Your task to perform on an android device: Search for vegetarian restaurants on Maps Image 0: 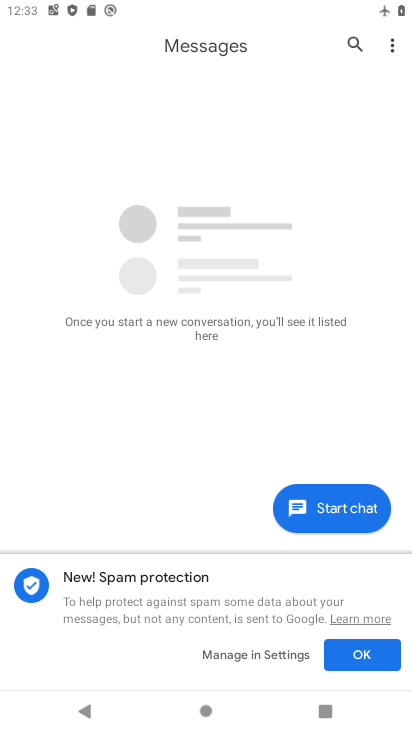
Step 0: press home button
Your task to perform on an android device: Search for vegetarian restaurants on Maps Image 1: 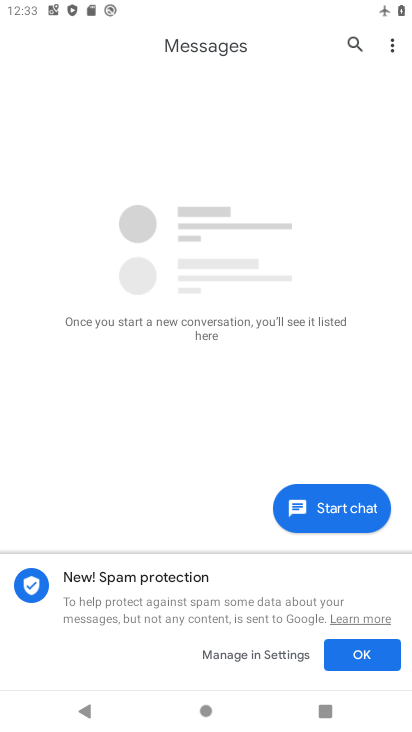
Step 1: press home button
Your task to perform on an android device: Search for vegetarian restaurants on Maps Image 2: 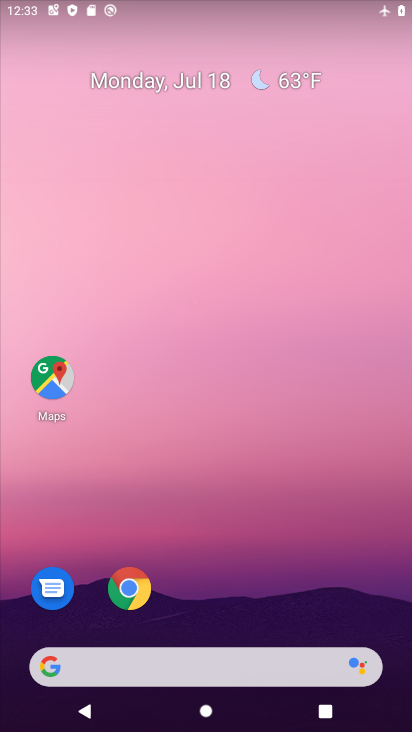
Step 2: drag from (231, 658) to (230, 143)
Your task to perform on an android device: Search for vegetarian restaurants on Maps Image 3: 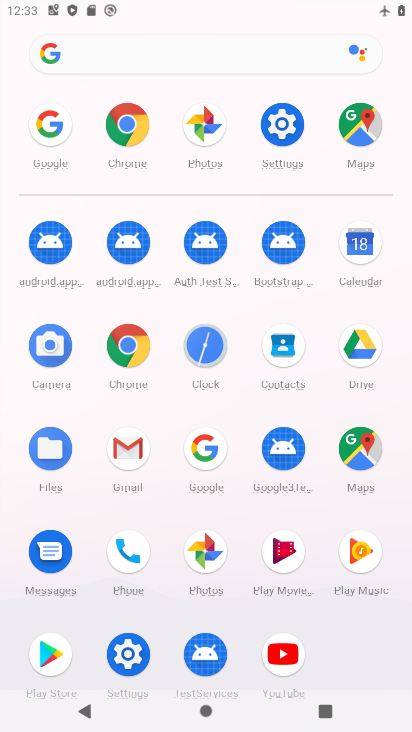
Step 3: click (354, 446)
Your task to perform on an android device: Search for vegetarian restaurants on Maps Image 4: 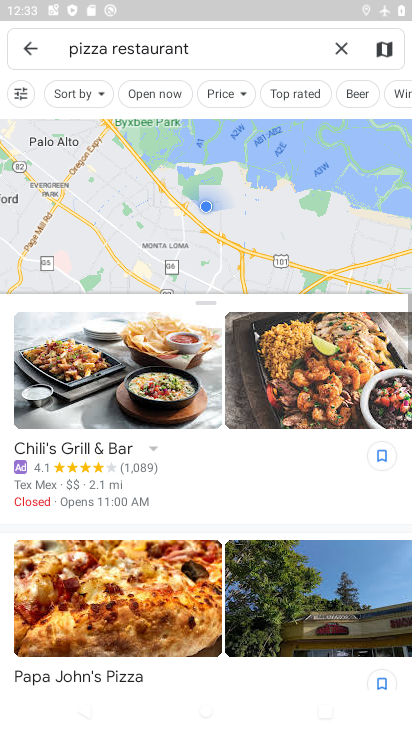
Step 4: click (338, 42)
Your task to perform on an android device: Search for vegetarian restaurants on Maps Image 5: 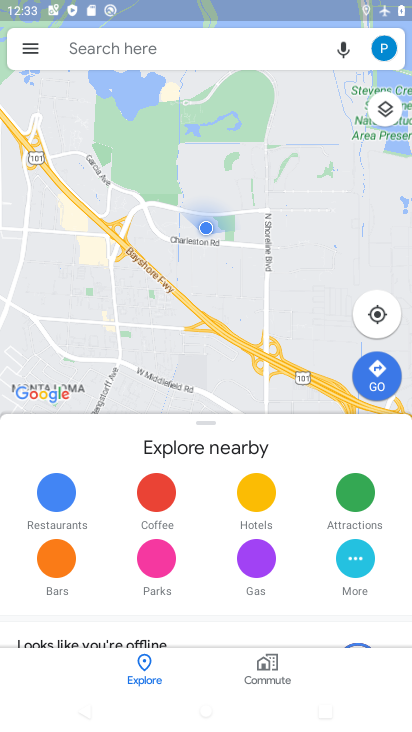
Step 5: click (117, 52)
Your task to perform on an android device: Search for vegetarian restaurants on Maps Image 6: 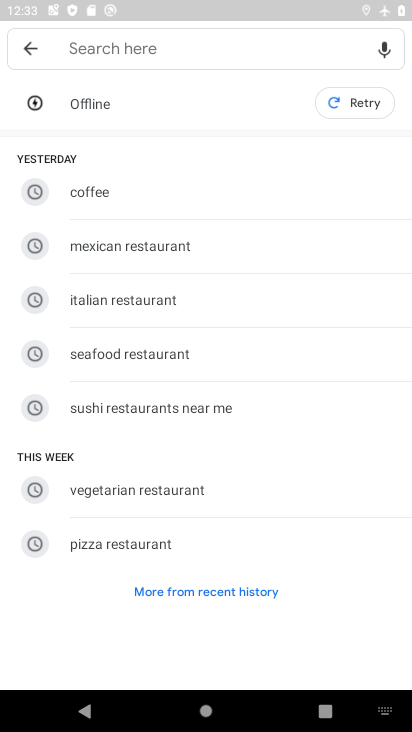
Step 6: type "vegetarian restaurants"
Your task to perform on an android device: Search for vegetarian restaurants on Maps Image 7: 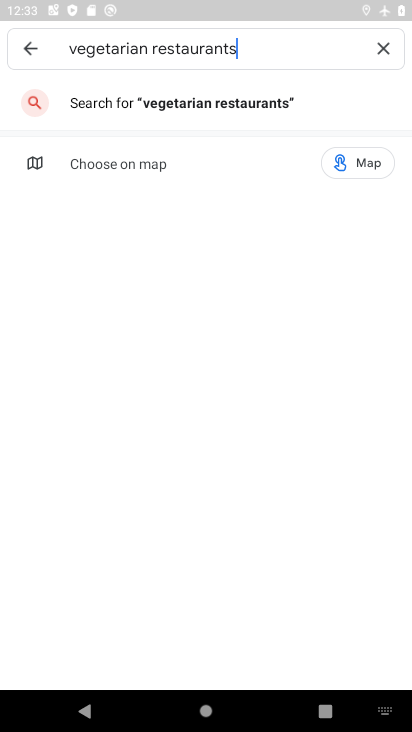
Step 7: click (185, 100)
Your task to perform on an android device: Search for vegetarian restaurants on Maps Image 8: 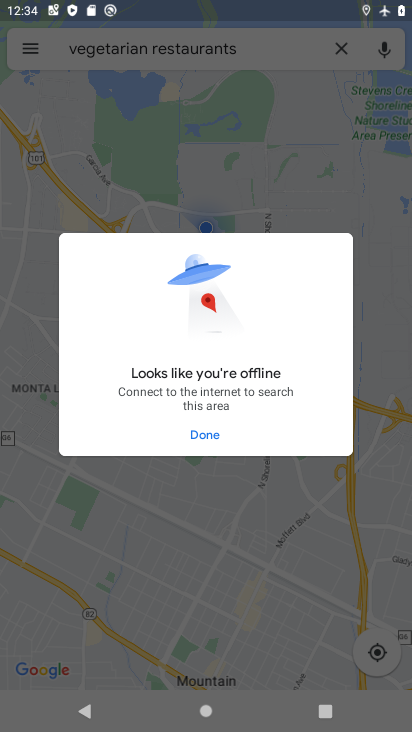
Step 8: click (202, 430)
Your task to perform on an android device: Search for vegetarian restaurants on Maps Image 9: 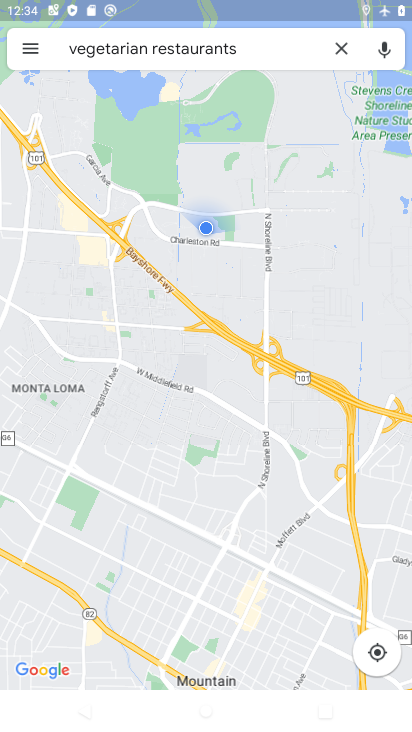
Step 9: task complete